Your task to perform on an android device: Turn on the flashlight Image 0: 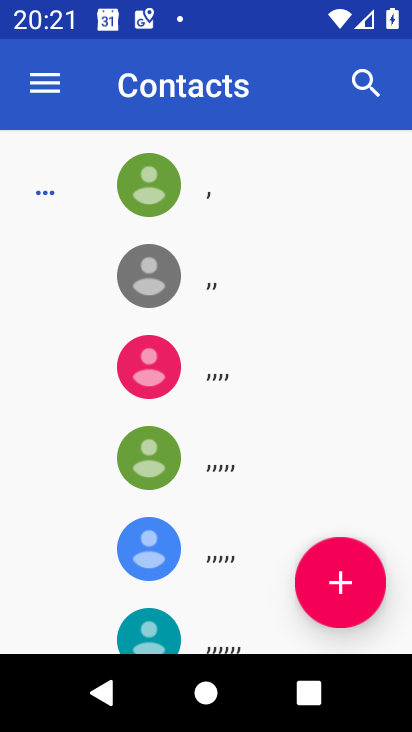
Step 0: press home button
Your task to perform on an android device: Turn on the flashlight Image 1: 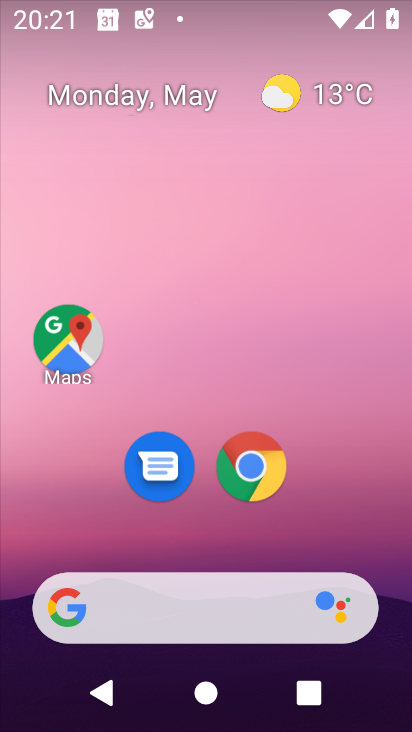
Step 1: drag from (293, 485) to (292, 166)
Your task to perform on an android device: Turn on the flashlight Image 2: 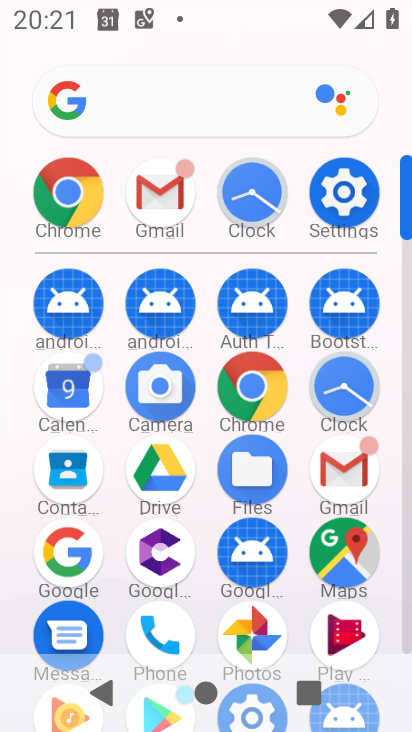
Step 2: click (342, 190)
Your task to perform on an android device: Turn on the flashlight Image 3: 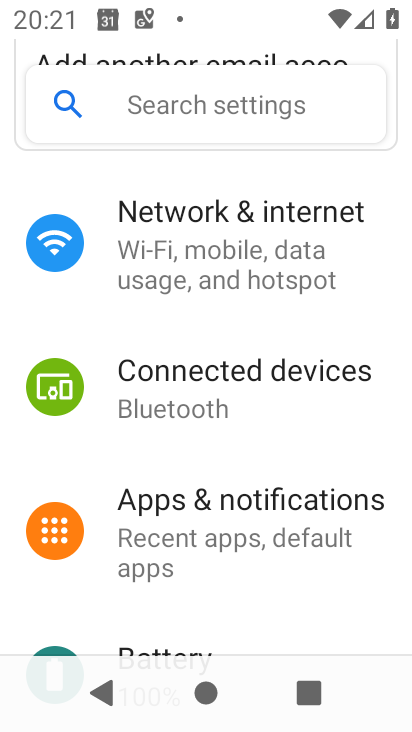
Step 3: task complete